Your task to perform on an android device: install app "Adobe Acrobat Reader: Edit PDF" Image 0: 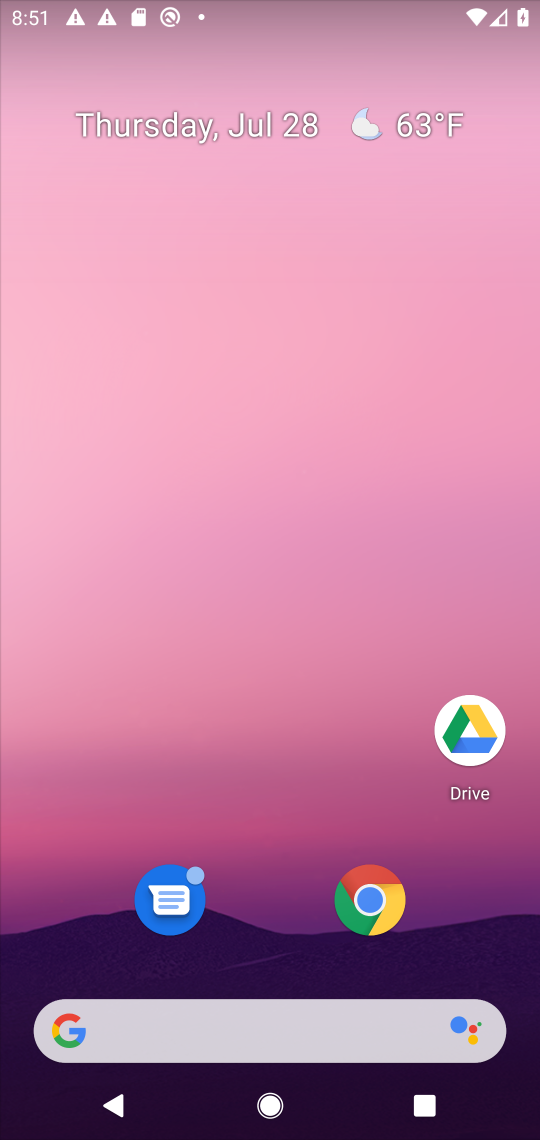
Step 0: drag from (314, 760) to (398, 22)
Your task to perform on an android device: install app "Adobe Acrobat Reader: Edit PDF" Image 1: 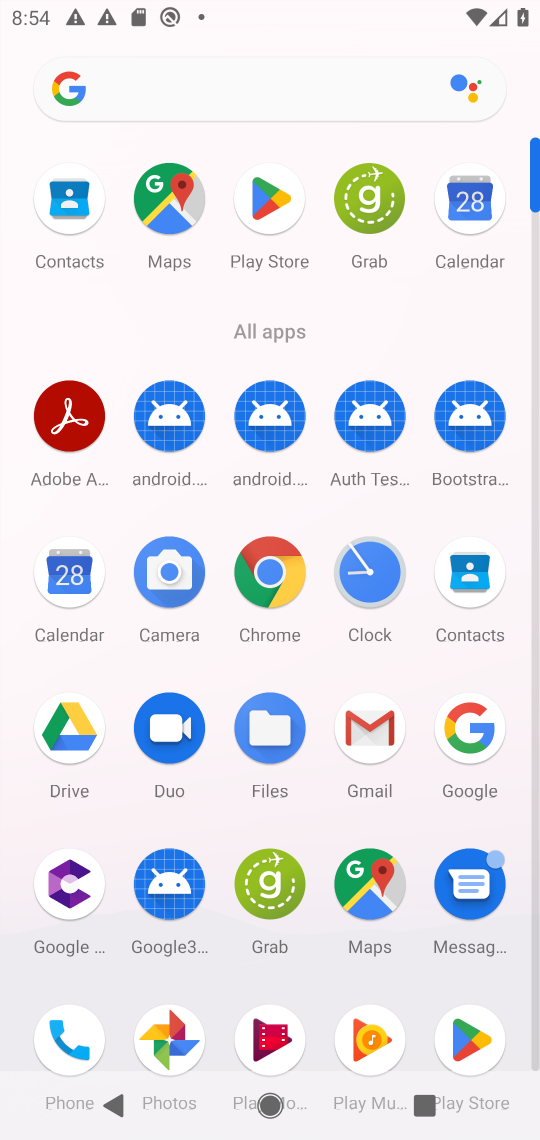
Step 1: task complete